Your task to perform on an android device: Search for Italian restaurants on Maps Image 0: 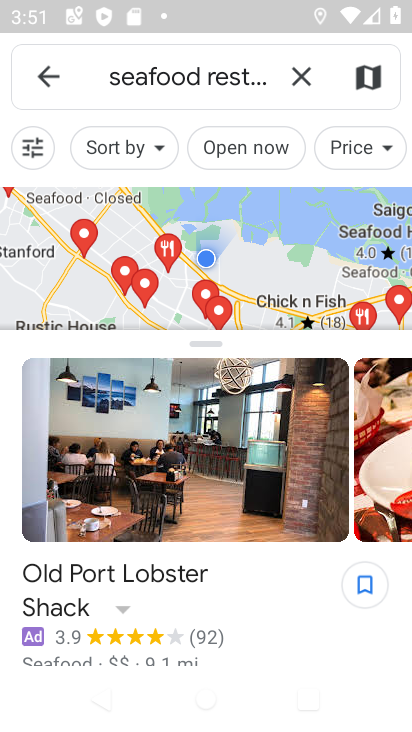
Step 0: click (305, 71)
Your task to perform on an android device: Search for Italian restaurants on Maps Image 1: 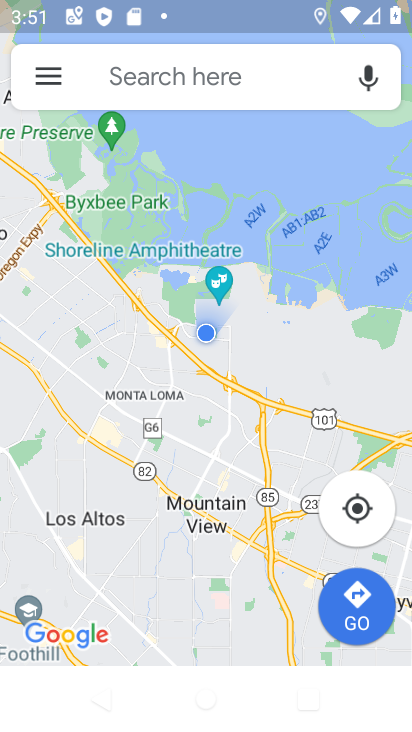
Step 1: click (113, 76)
Your task to perform on an android device: Search for Italian restaurants on Maps Image 2: 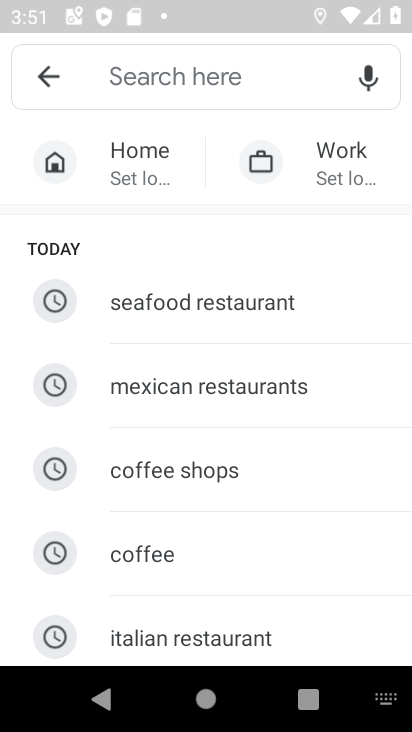
Step 2: type " Italian restaurants"
Your task to perform on an android device: Search for Italian restaurants on Maps Image 3: 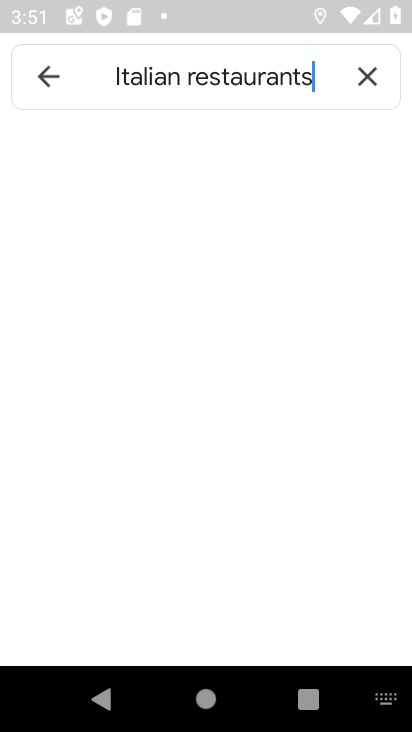
Step 3: type ""
Your task to perform on an android device: Search for Italian restaurants on Maps Image 4: 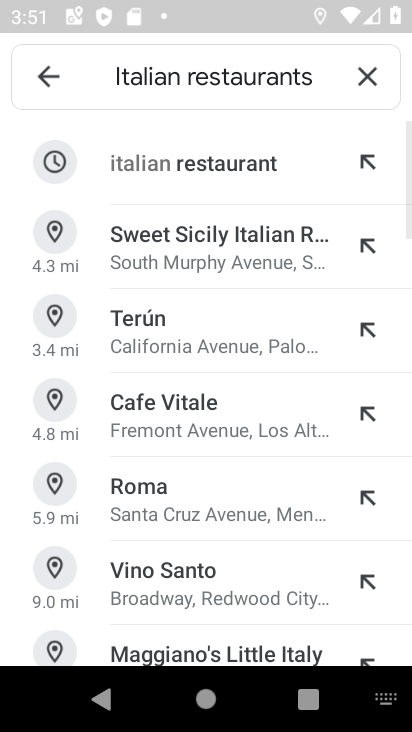
Step 4: click (199, 161)
Your task to perform on an android device: Search for Italian restaurants on Maps Image 5: 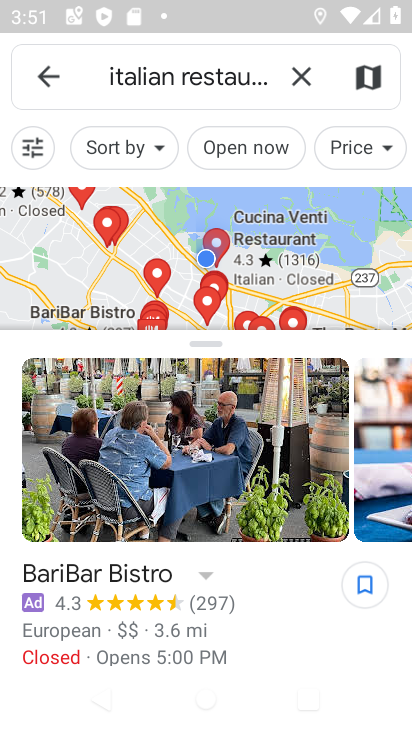
Step 5: task complete